Your task to perform on an android device: open a new tab in the chrome app Image 0: 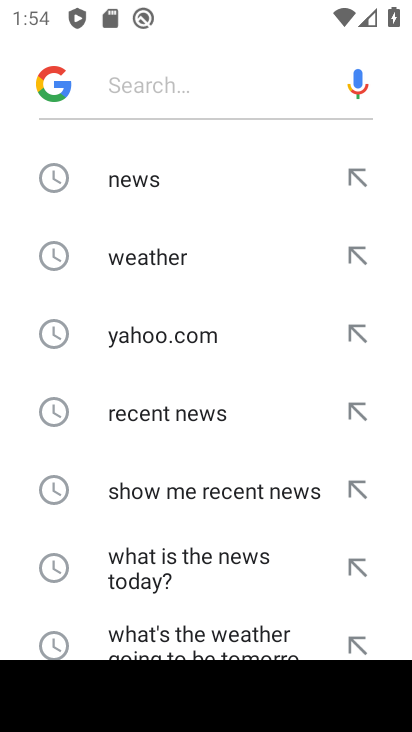
Step 0: press home button
Your task to perform on an android device: open a new tab in the chrome app Image 1: 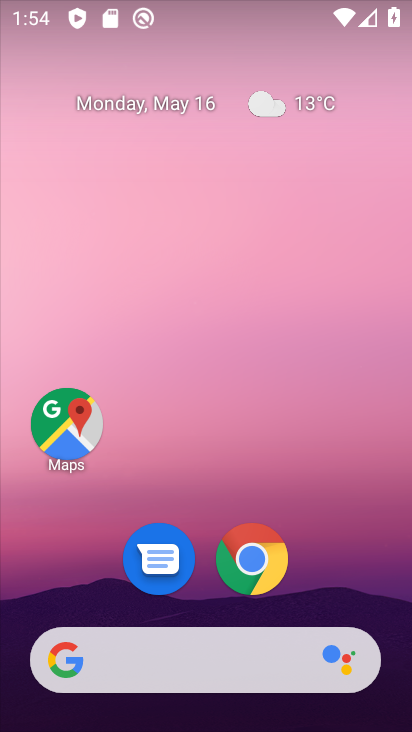
Step 1: click (259, 563)
Your task to perform on an android device: open a new tab in the chrome app Image 2: 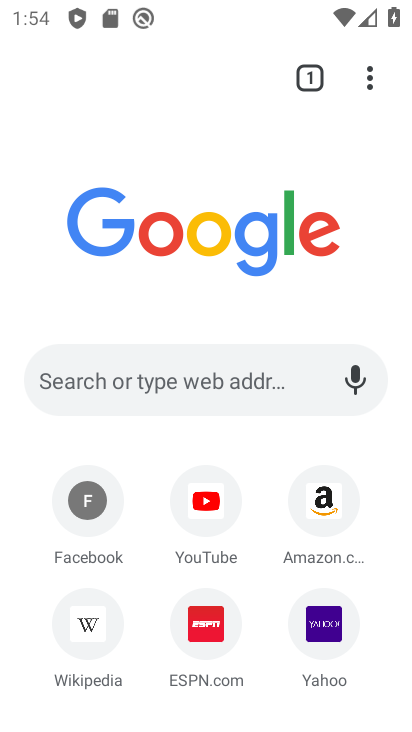
Step 2: click (308, 75)
Your task to perform on an android device: open a new tab in the chrome app Image 3: 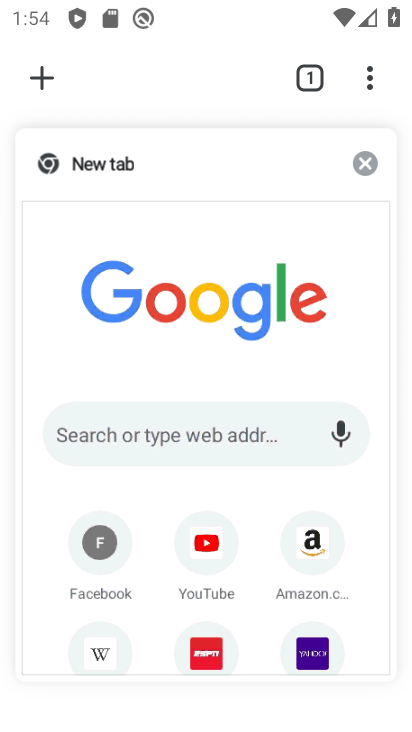
Step 3: click (32, 71)
Your task to perform on an android device: open a new tab in the chrome app Image 4: 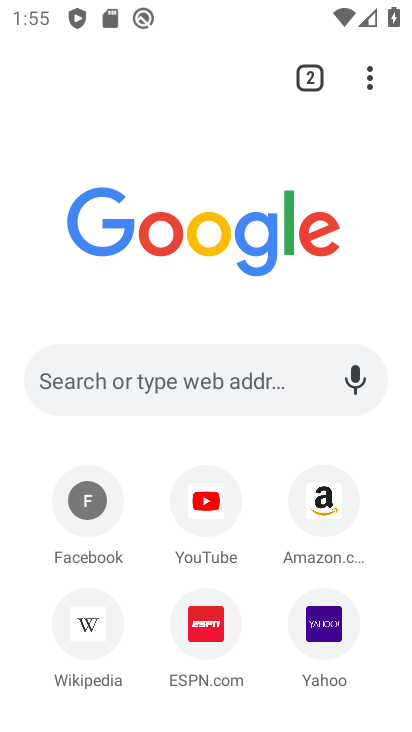
Step 4: task complete